Your task to perform on an android device: open a bookmark in the chrome app Image 0: 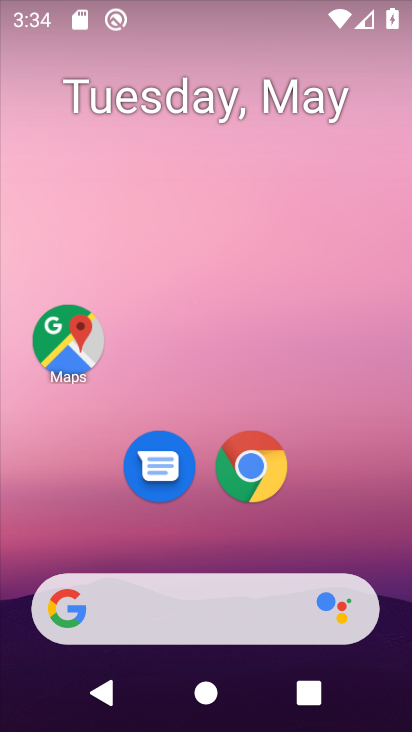
Step 0: drag from (313, 423) to (327, 52)
Your task to perform on an android device: open a bookmark in the chrome app Image 1: 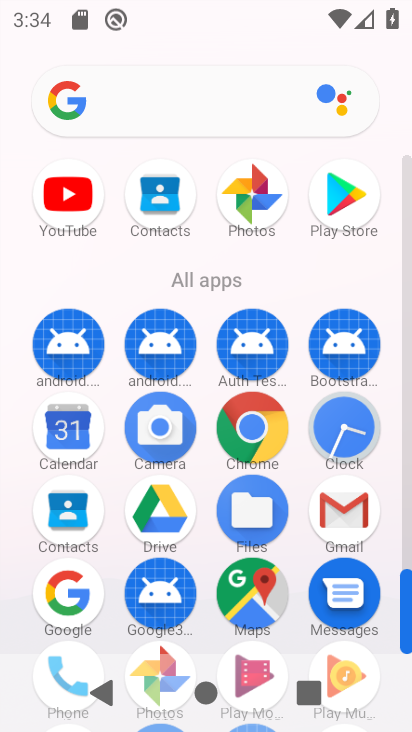
Step 1: click (246, 429)
Your task to perform on an android device: open a bookmark in the chrome app Image 2: 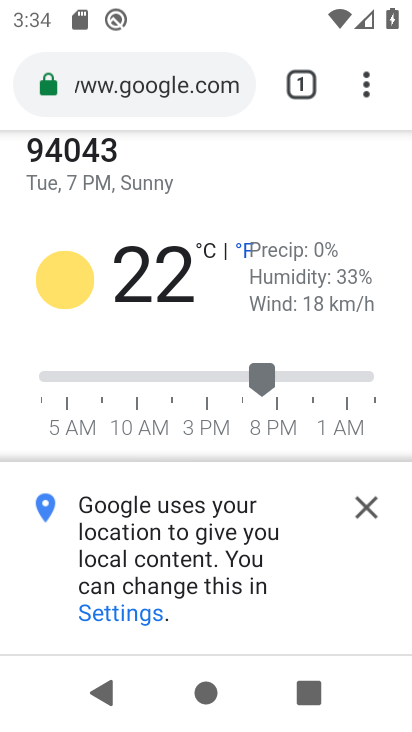
Step 2: task complete